Your task to perform on an android device: change the clock display to digital Image 0: 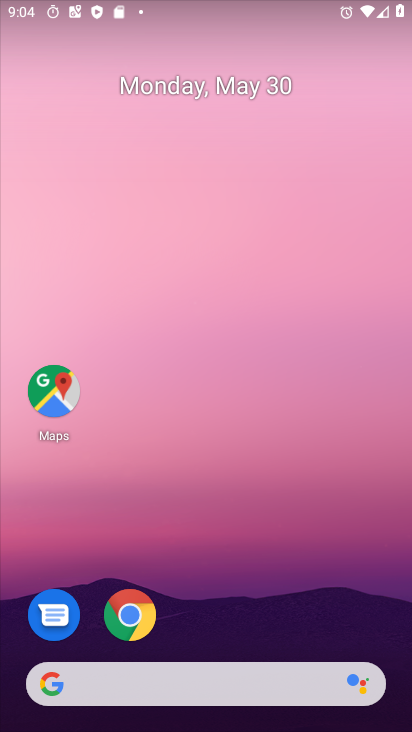
Step 0: drag from (310, 592) to (332, 49)
Your task to perform on an android device: change the clock display to digital Image 1: 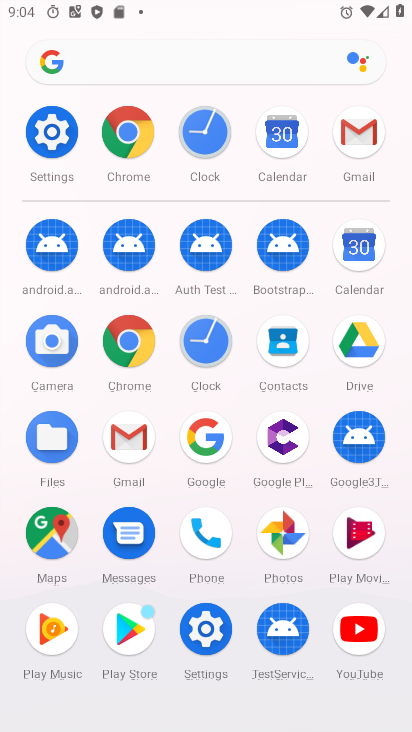
Step 1: click (42, 138)
Your task to perform on an android device: change the clock display to digital Image 2: 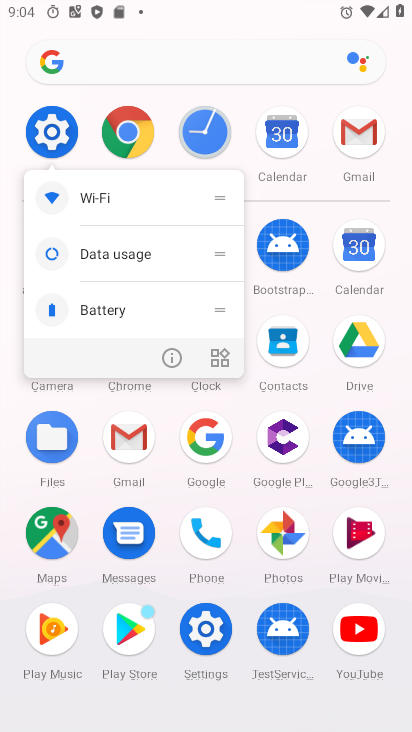
Step 2: click (58, 122)
Your task to perform on an android device: change the clock display to digital Image 3: 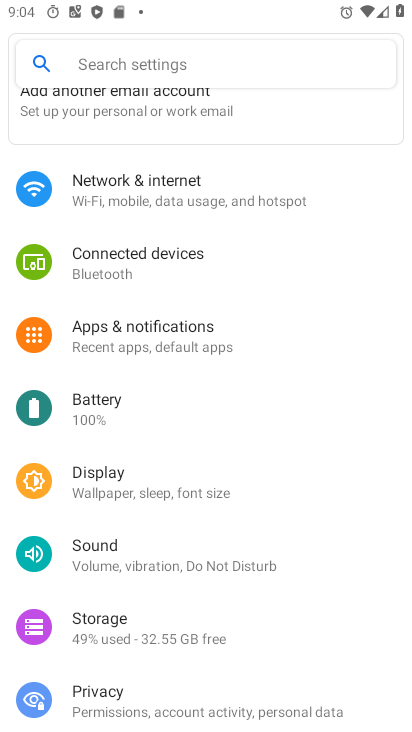
Step 3: drag from (231, 280) to (235, 612)
Your task to perform on an android device: change the clock display to digital Image 4: 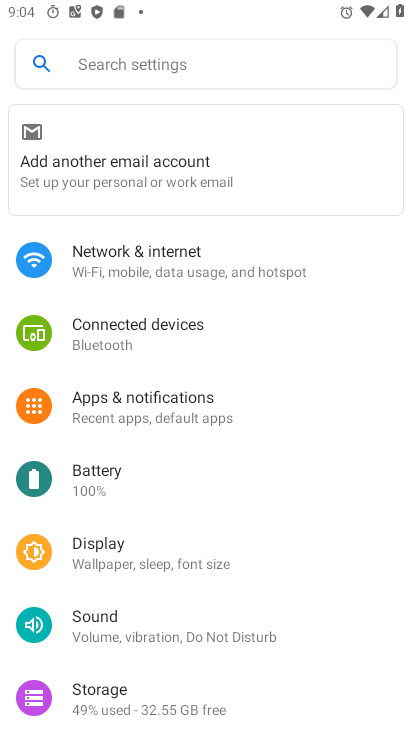
Step 4: drag from (224, 584) to (224, 286)
Your task to perform on an android device: change the clock display to digital Image 5: 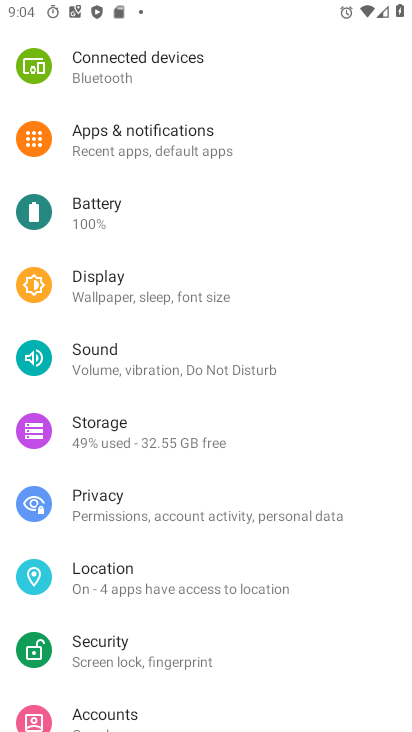
Step 5: click (167, 287)
Your task to perform on an android device: change the clock display to digital Image 6: 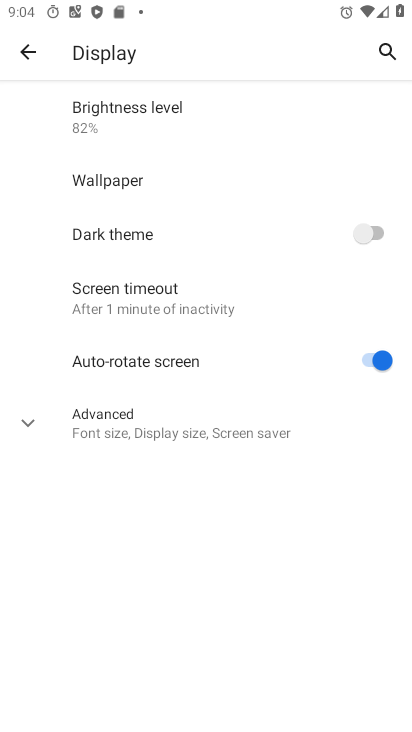
Step 6: task complete